Your task to perform on an android device: Open settings Image 0: 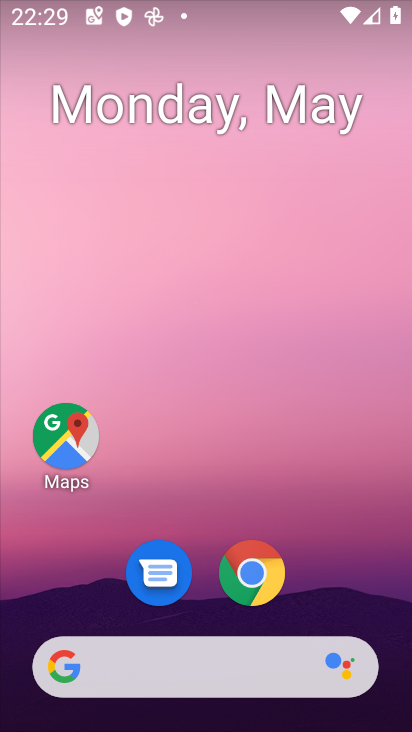
Step 0: drag from (359, 613) to (276, 65)
Your task to perform on an android device: Open settings Image 1: 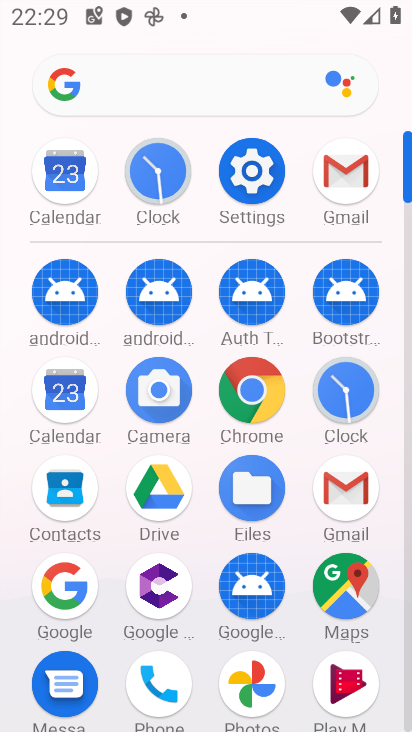
Step 1: click (243, 183)
Your task to perform on an android device: Open settings Image 2: 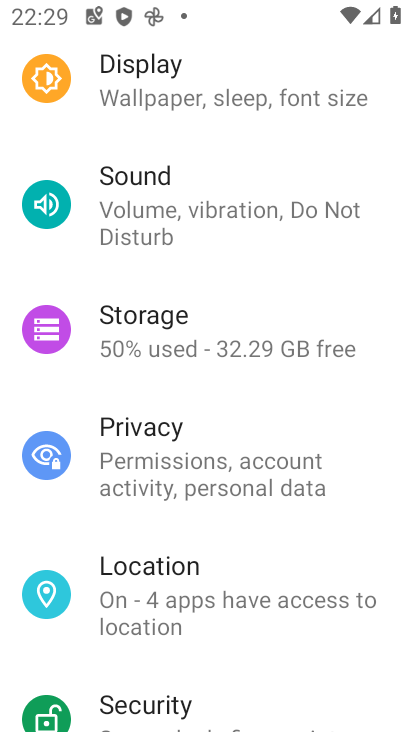
Step 2: task complete